Your task to perform on an android device: toggle location history Image 0: 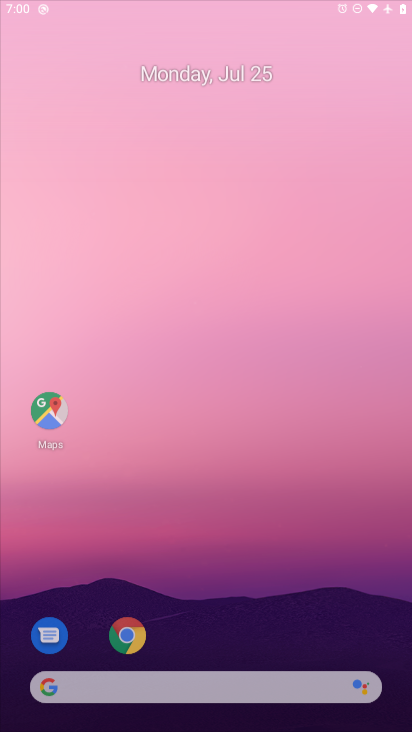
Step 0: press home button
Your task to perform on an android device: toggle location history Image 1: 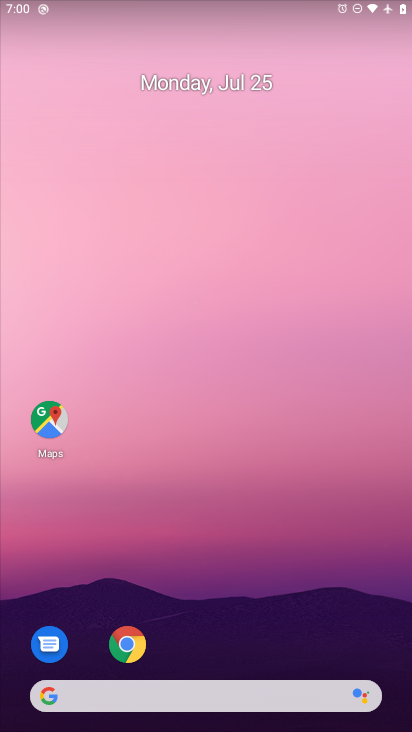
Step 1: drag from (284, 651) to (293, 292)
Your task to perform on an android device: toggle location history Image 2: 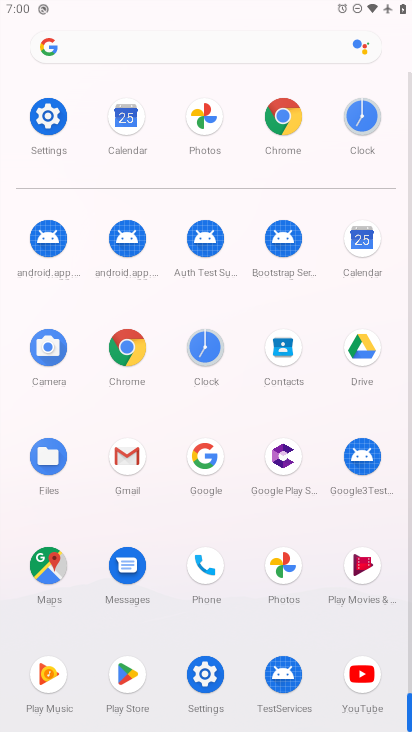
Step 2: click (56, 127)
Your task to perform on an android device: toggle location history Image 3: 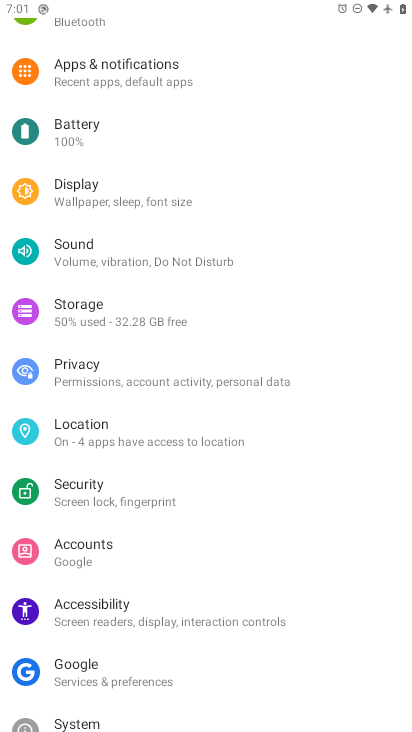
Step 3: click (87, 431)
Your task to perform on an android device: toggle location history Image 4: 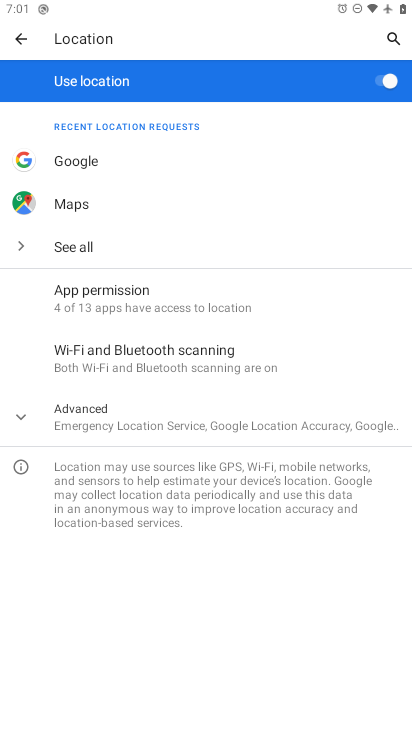
Step 4: click (101, 420)
Your task to perform on an android device: toggle location history Image 5: 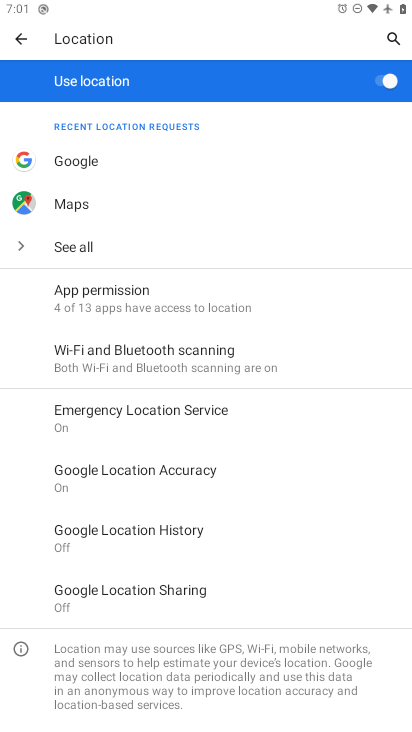
Step 5: click (175, 533)
Your task to perform on an android device: toggle location history Image 6: 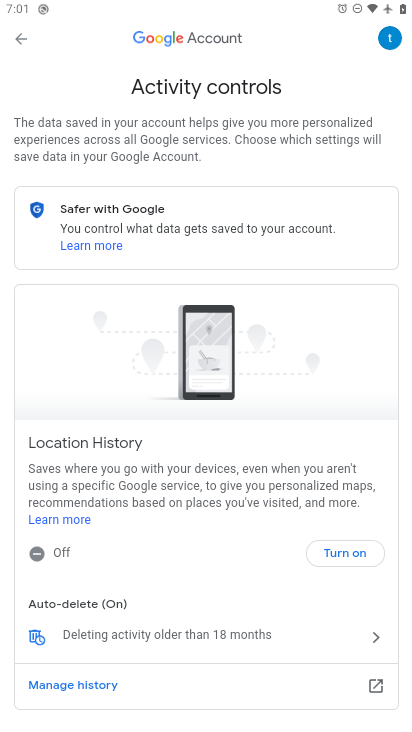
Step 6: click (350, 555)
Your task to perform on an android device: toggle location history Image 7: 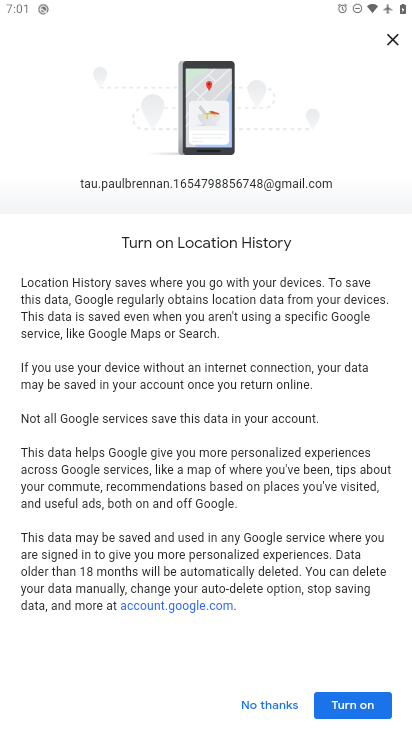
Step 7: click (356, 710)
Your task to perform on an android device: toggle location history Image 8: 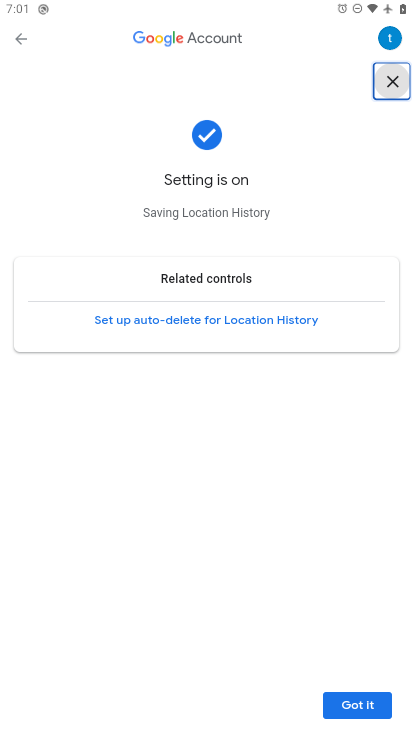
Step 8: click (344, 704)
Your task to perform on an android device: toggle location history Image 9: 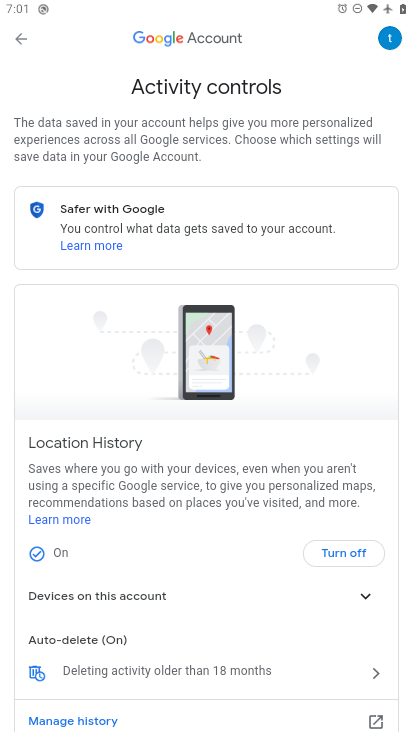
Step 9: task complete